Your task to perform on an android device: set the stopwatch Image 0: 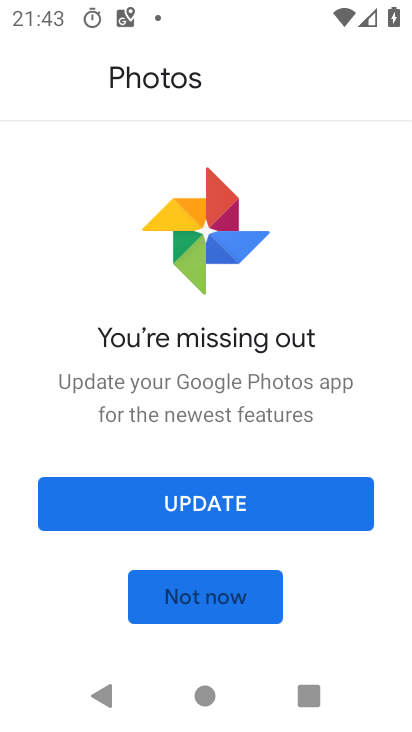
Step 0: press back button
Your task to perform on an android device: set the stopwatch Image 1: 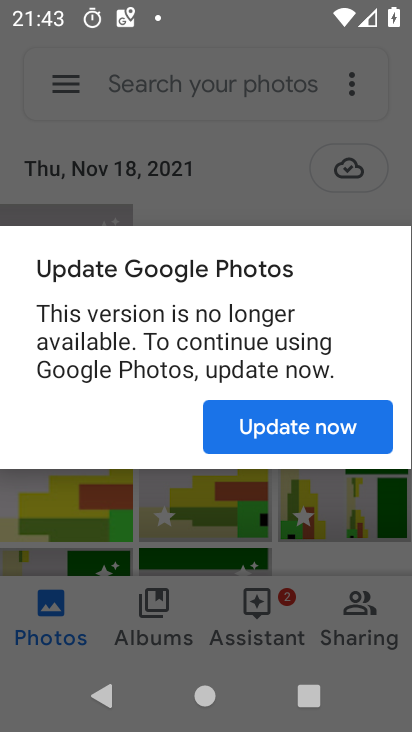
Step 1: press home button
Your task to perform on an android device: set the stopwatch Image 2: 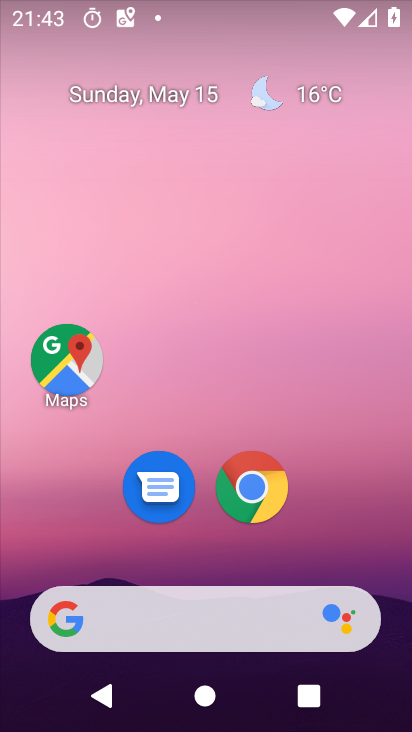
Step 2: drag from (386, 658) to (333, 168)
Your task to perform on an android device: set the stopwatch Image 3: 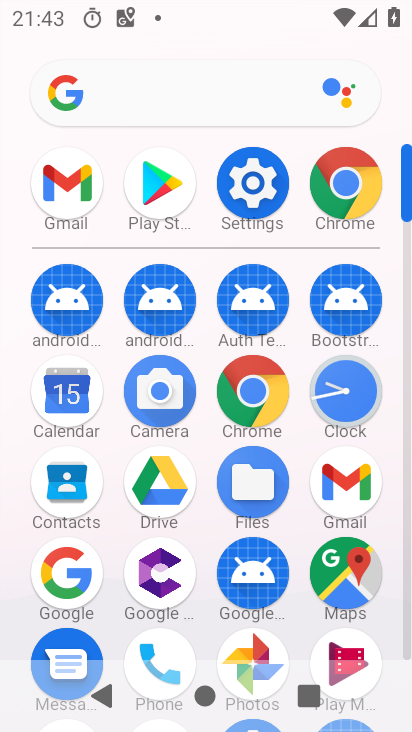
Step 3: click (355, 399)
Your task to perform on an android device: set the stopwatch Image 4: 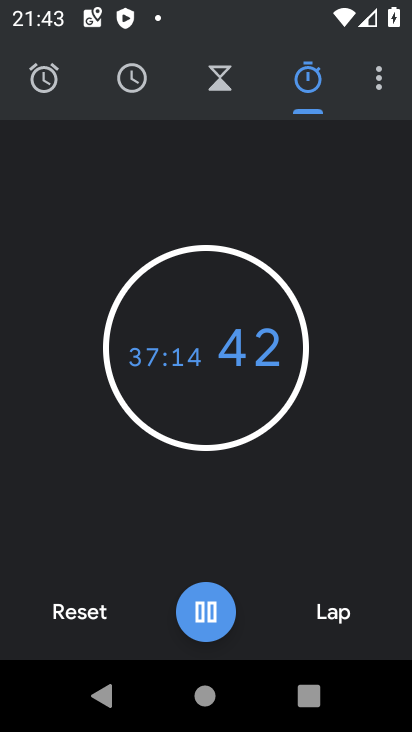
Step 4: click (79, 606)
Your task to perform on an android device: set the stopwatch Image 5: 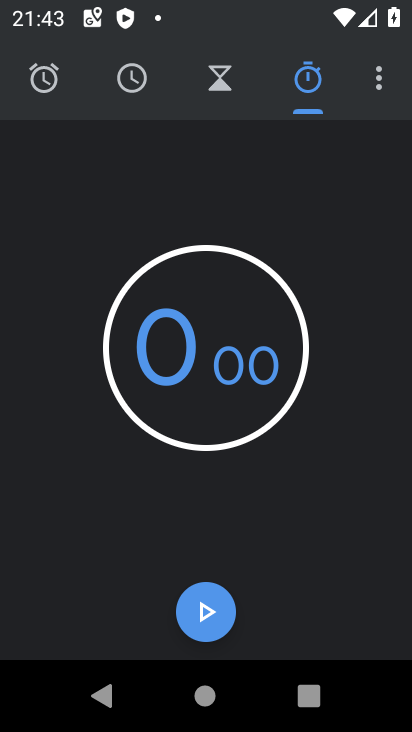
Step 5: click (206, 619)
Your task to perform on an android device: set the stopwatch Image 6: 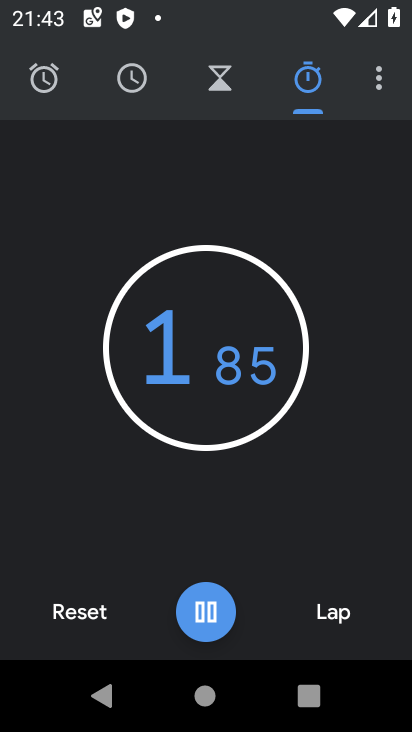
Step 6: task complete